Your task to perform on an android device: Go to CNN.com Image 0: 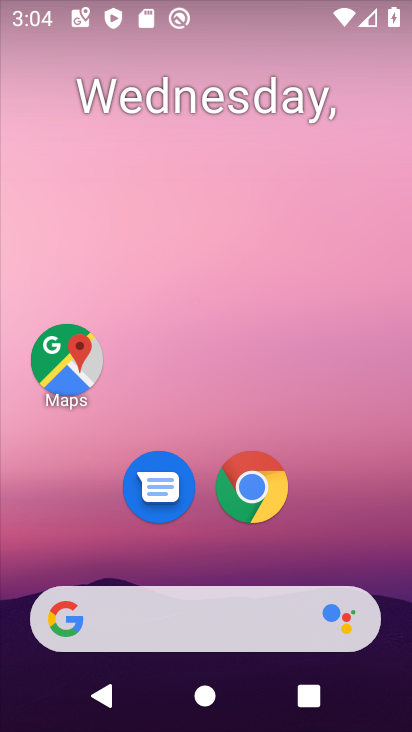
Step 0: click (264, 627)
Your task to perform on an android device: Go to CNN.com Image 1: 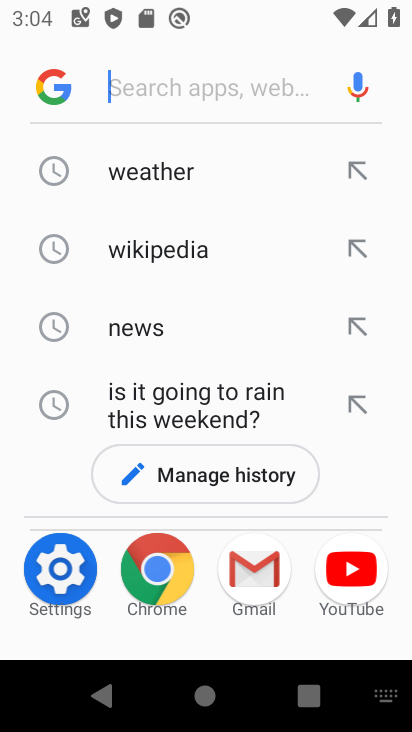
Step 1: type "cnn.com"
Your task to perform on an android device: Go to CNN.com Image 2: 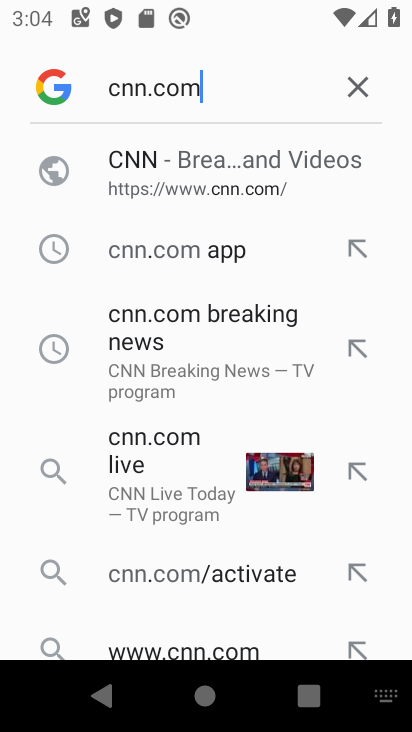
Step 2: click (164, 177)
Your task to perform on an android device: Go to CNN.com Image 3: 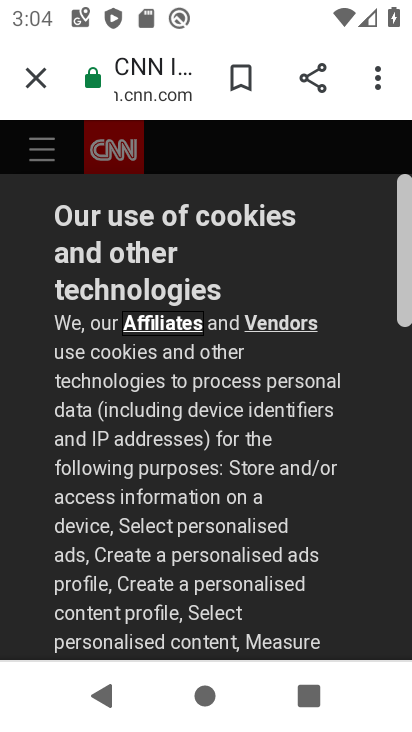
Step 3: task complete